Your task to perform on an android device: Search for Mexican restaurants on Maps Image 0: 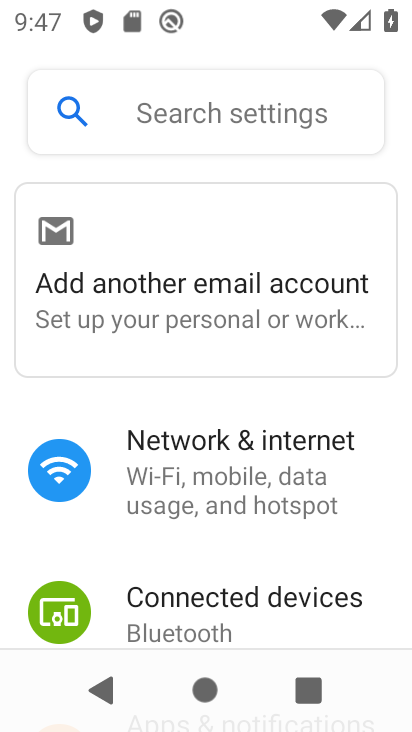
Step 0: press home button
Your task to perform on an android device: Search for Mexican restaurants on Maps Image 1: 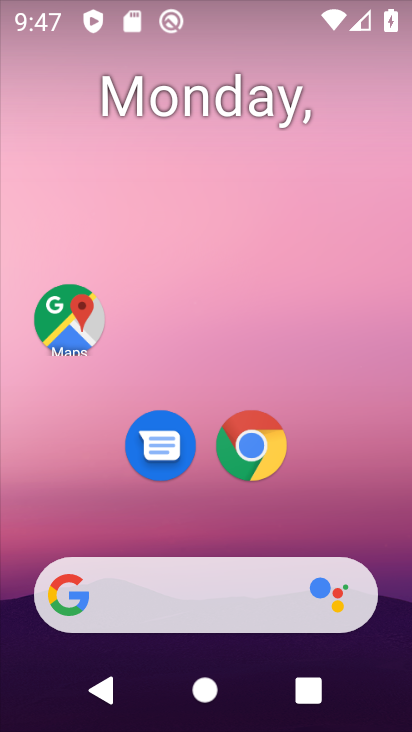
Step 1: click (70, 334)
Your task to perform on an android device: Search for Mexican restaurants on Maps Image 2: 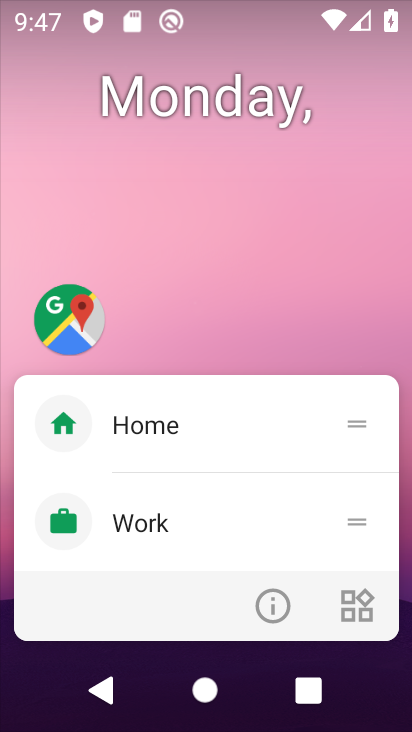
Step 2: click (75, 318)
Your task to perform on an android device: Search for Mexican restaurants on Maps Image 3: 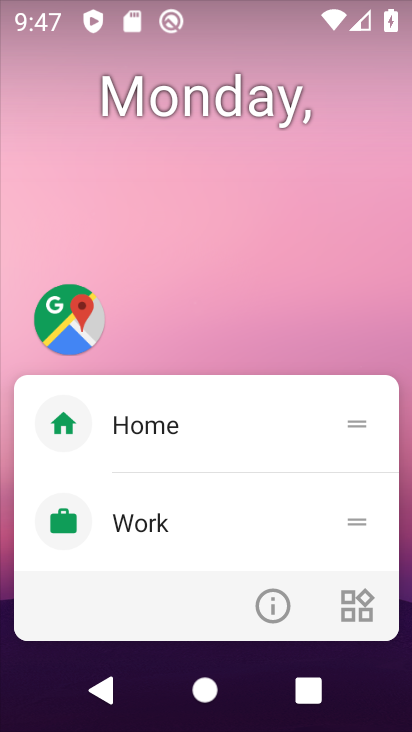
Step 3: click (83, 334)
Your task to perform on an android device: Search for Mexican restaurants on Maps Image 4: 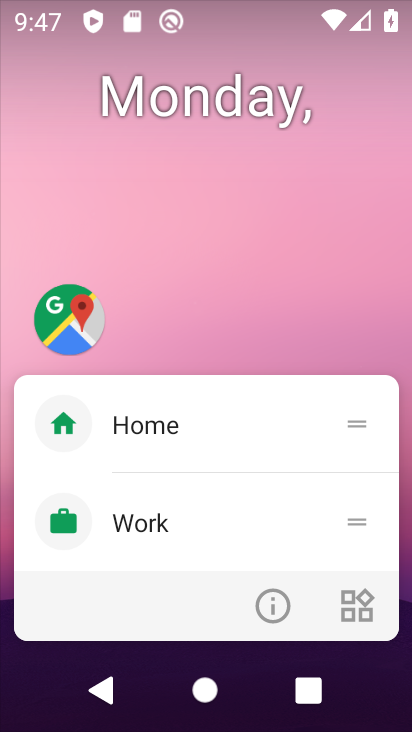
Step 4: click (72, 332)
Your task to perform on an android device: Search for Mexican restaurants on Maps Image 5: 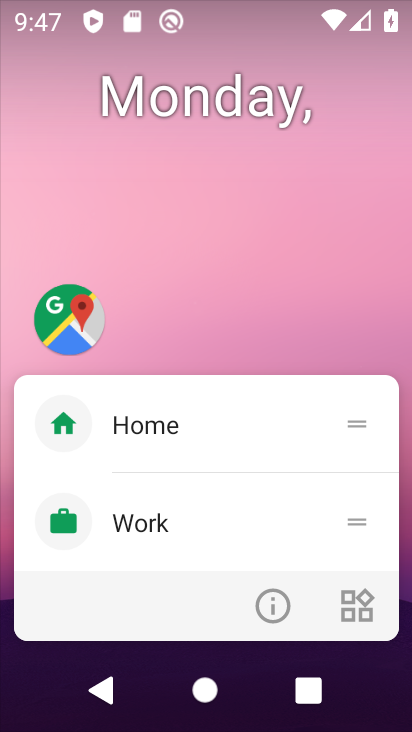
Step 5: click (69, 326)
Your task to perform on an android device: Search for Mexican restaurants on Maps Image 6: 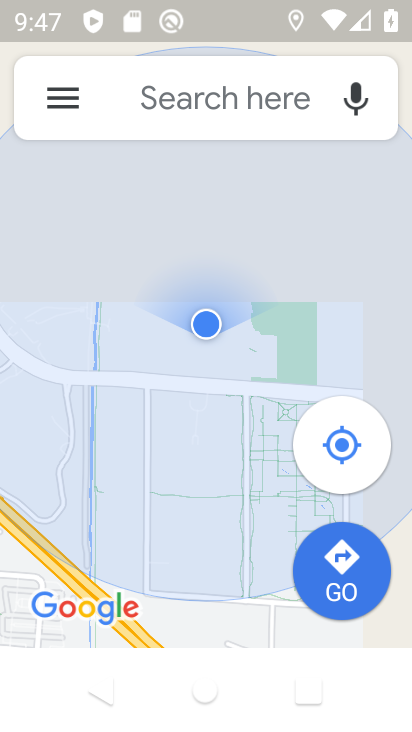
Step 6: click (159, 110)
Your task to perform on an android device: Search for Mexican restaurants on Maps Image 7: 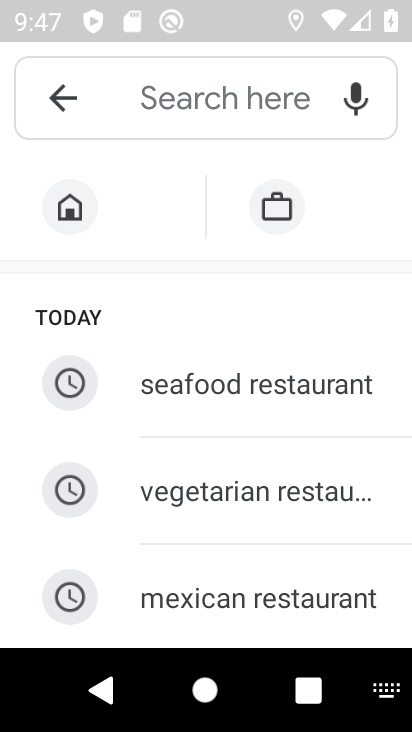
Step 7: type "Mexican restaurants"
Your task to perform on an android device: Search for Mexican restaurants on Maps Image 8: 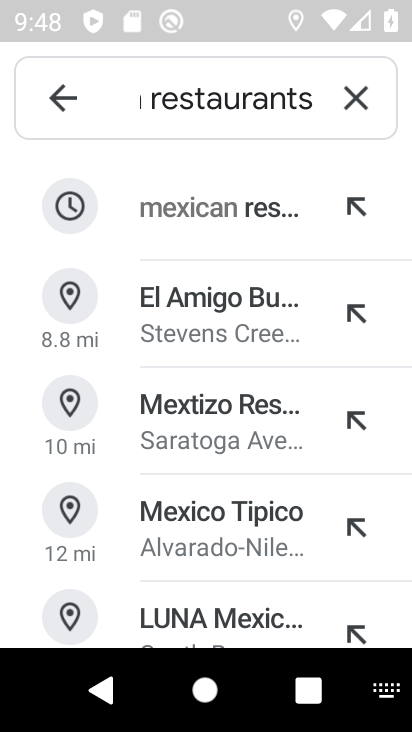
Step 8: click (146, 221)
Your task to perform on an android device: Search for Mexican restaurants on Maps Image 9: 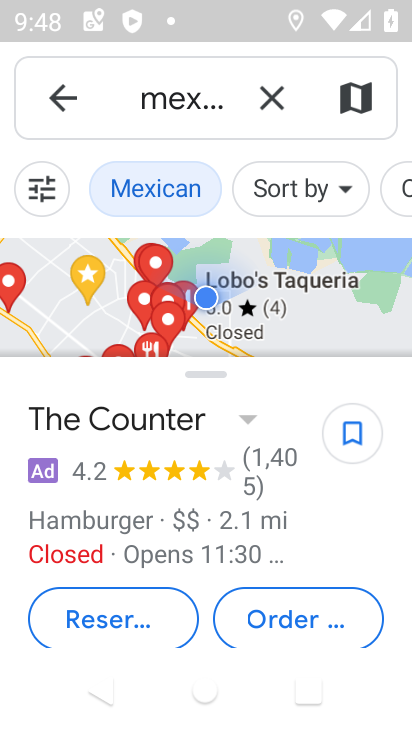
Step 9: task complete